Your task to perform on an android device: Open display settings Image 0: 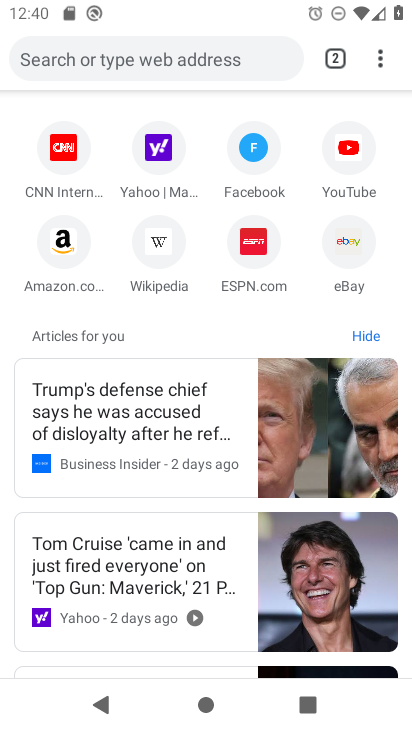
Step 0: press home button
Your task to perform on an android device: Open display settings Image 1: 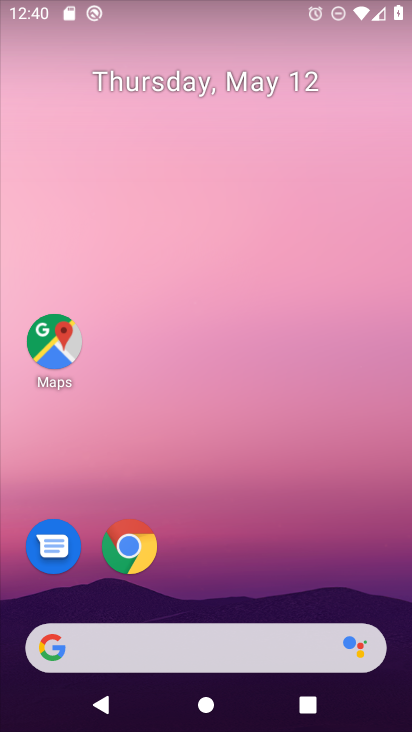
Step 1: drag from (398, 653) to (277, 115)
Your task to perform on an android device: Open display settings Image 2: 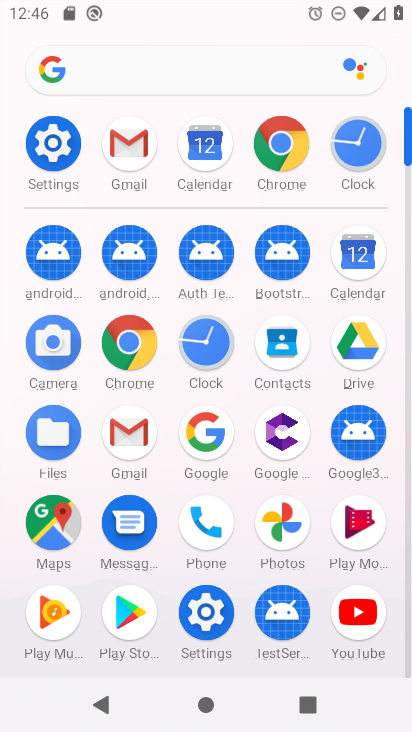
Step 2: click (219, 604)
Your task to perform on an android device: Open display settings Image 3: 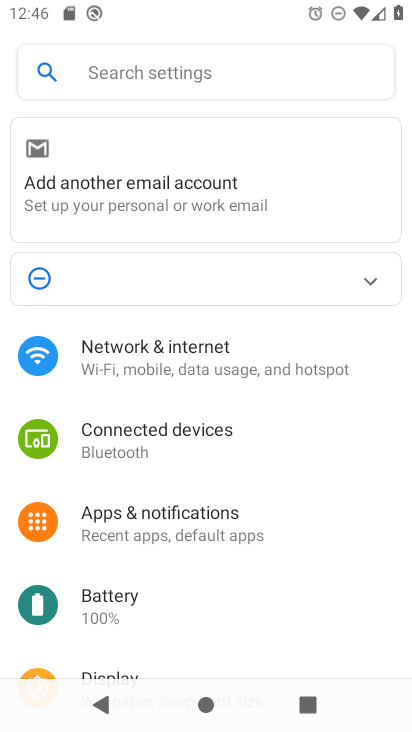
Step 3: drag from (157, 614) to (230, 325)
Your task to perform on an android device: Open display settings Image 4: 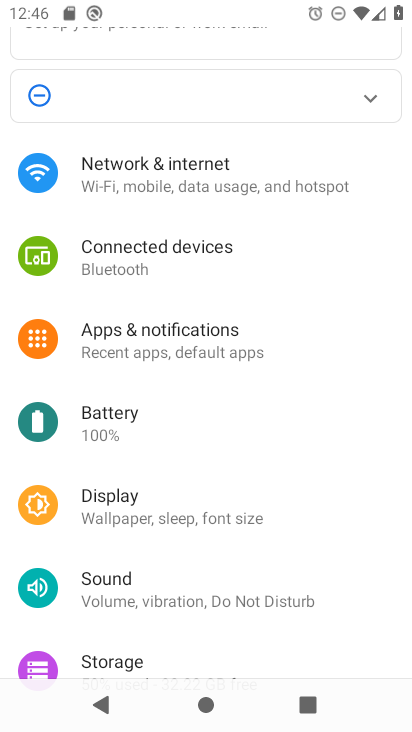
Step 4: click (138, 489)
Your task to perform on an android device: Open display settings Image 5: 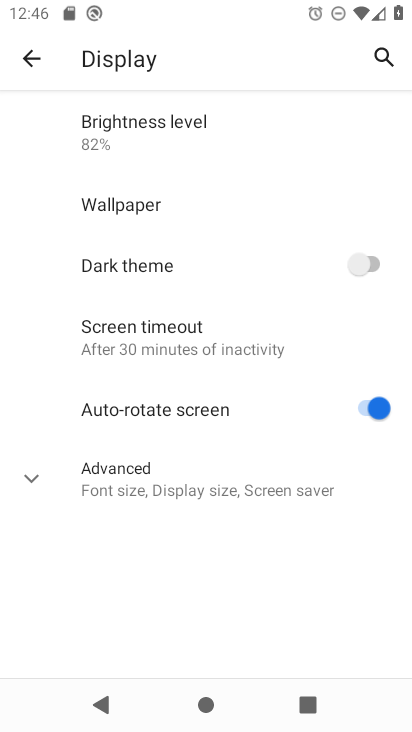
Step 5: task complete